Your task to perform on an android device: Open accessibility settings Image 0: 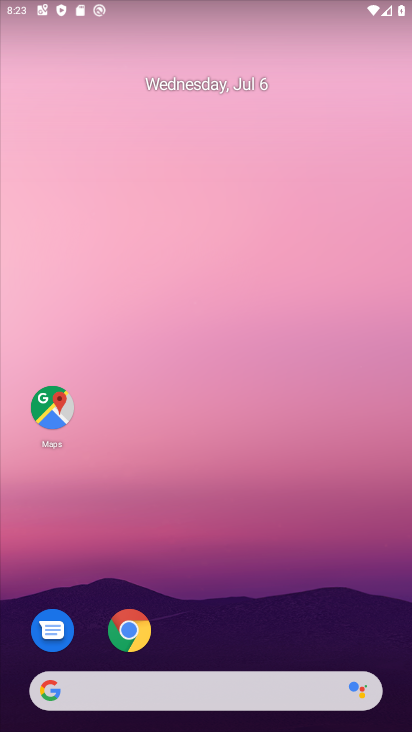
Step 0: drag from (400, 707) to (326, 219)
Your task to perform on an android device: Open accessibility settings Image 1: 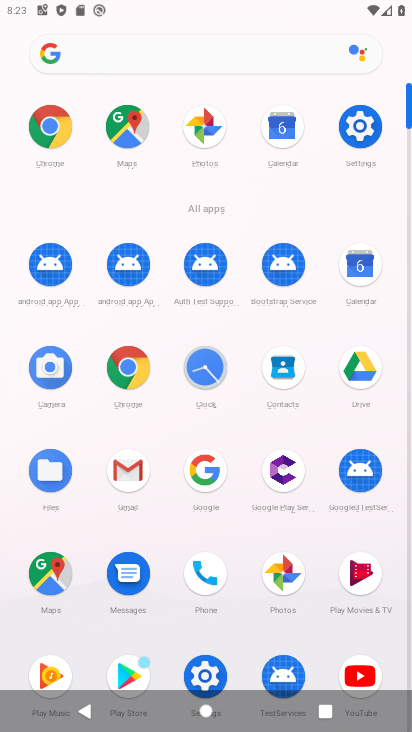
Step 1: click (360, 127)
Your task to perform on an android device: Open accessibility settings Image 2: 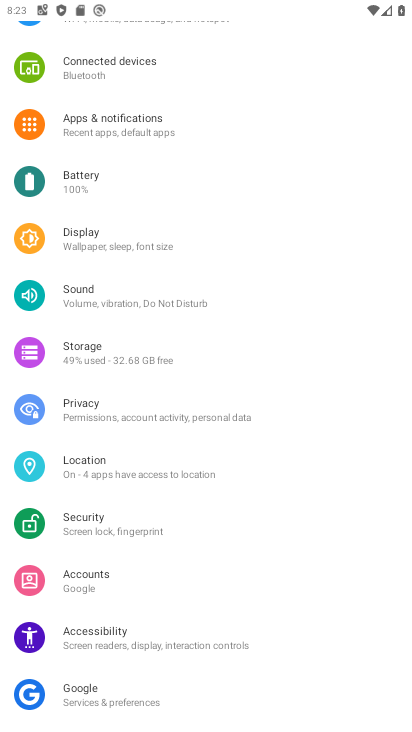
Step 2: drag from (301, 664) to (225, 179)
Your task to perform on an android device: Open accessibility settings Image 3: 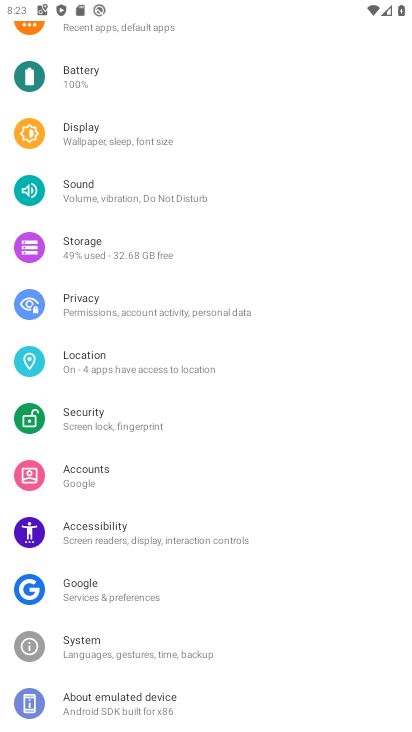
Step 3: click (101, 537)
Your task to perform on an android device: Open accessibility settings Image 4: 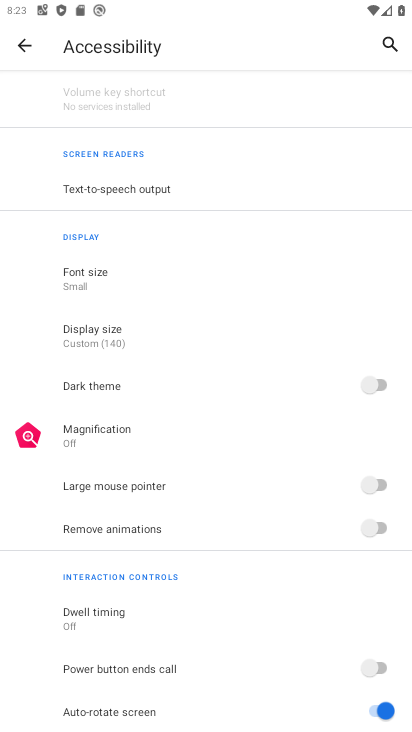
Step 4: task complete